Your task to perform on an android device: Search for vegetarian restaurants on Maps Image 0: 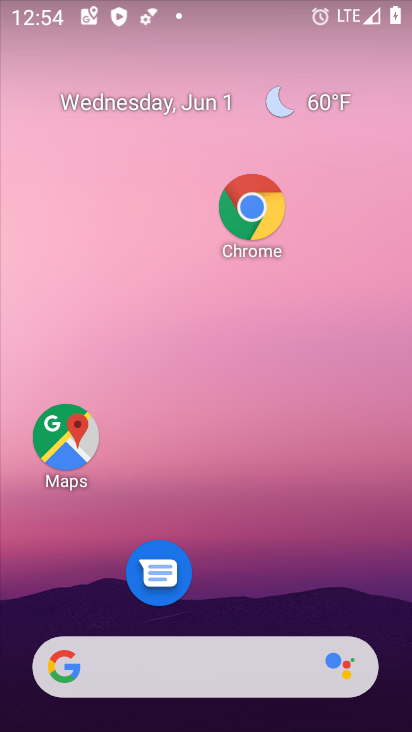
Step 0: click (60, 437)
Your task to perform on an android device: Search for vegetarian restaurants on Maps Image 1: 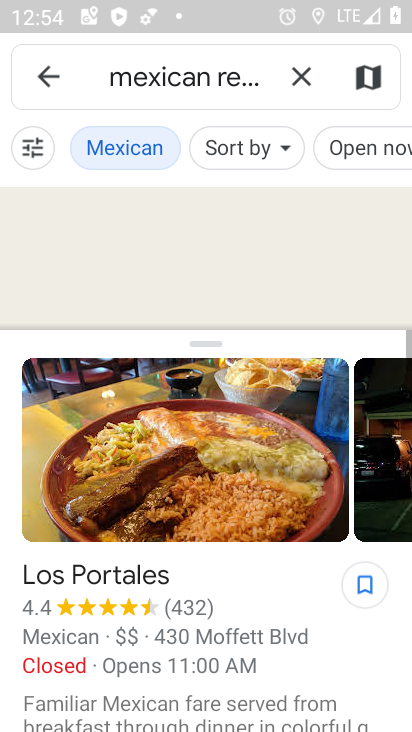
Step 1: click (291, 82)
Your task to perform on an android device: Search for vegetarian restaurants on Maps Image 2: 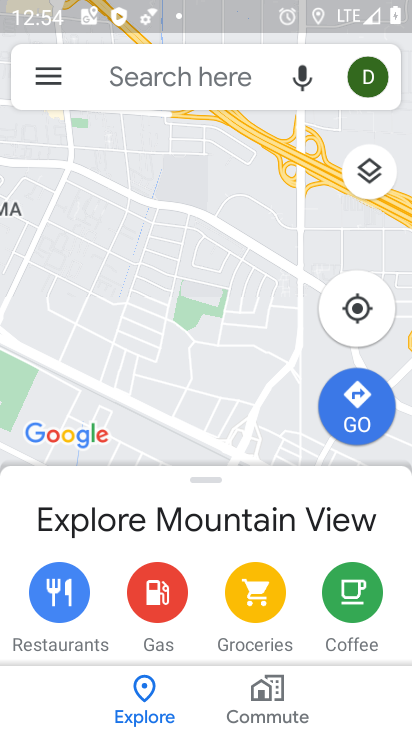
Step 2: click (207, 80)
Your task to perform on an android device: Search for vegetarian restaurants on Maps Image 3: 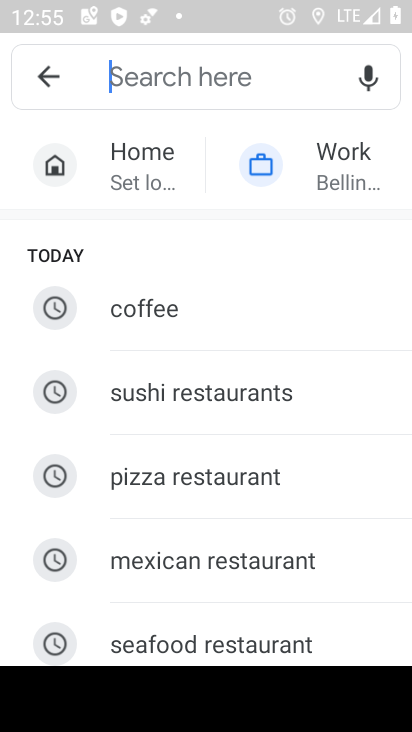
Step 3: type "vegetarian restaurants"
Your task to perform on an android device: Search for vegetarian restaurants on Maps Image 4: 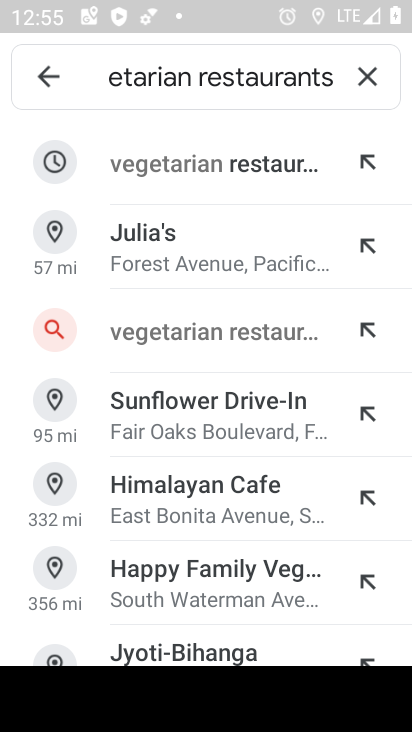
Step 4: click (228, 176)
Your task to perform on an android device: Search for vegetarian restaurants on Maps Image 5: 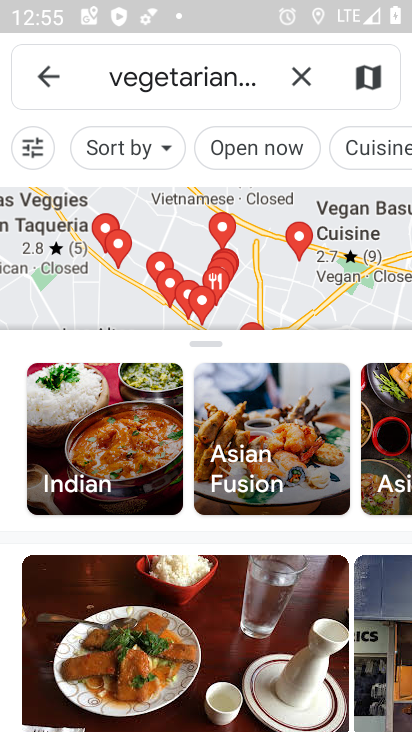
Step 5: task complete